Your task to perform on an android device: see sites visited before in the chrome app Image 0: 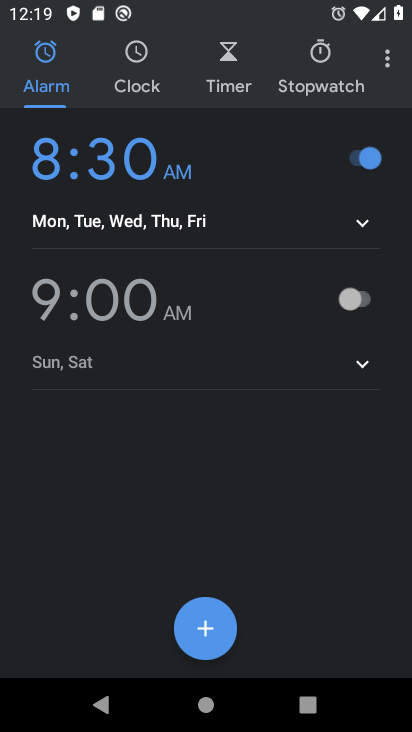
Step 0: click (227, 485)
Your task to perform on an android device: see sites visited before in the chrome app Image 1: 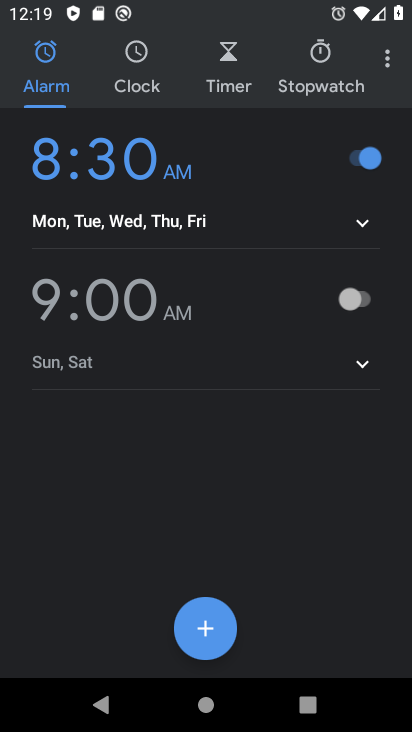
Step 1: click (382, 63)
Your task to perform on an android device: see sites visited before in the chrome app Image 2: 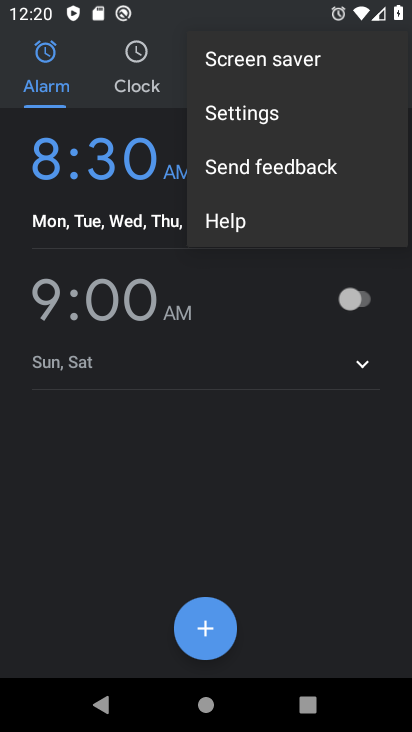
Step 2: click (235, 479)
Your task to perform on an android device: see sites visited before in the chrome app Image 3: 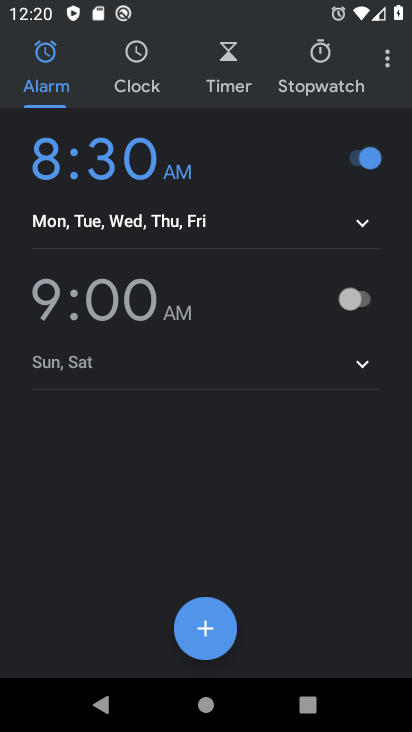
Step 3: press home button
Your task to perform on an android device: see sites visited before in the chrome app Image 4: 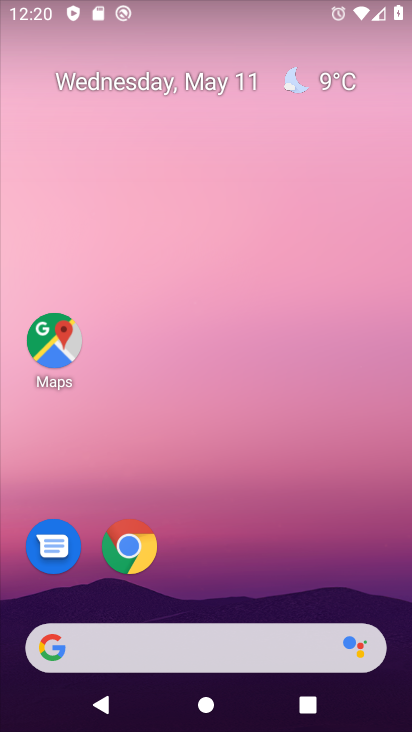
Step 4: drag from (252, 590) to (267, 29)
Your task to perform on an android device: see sites visited before in the chrome app Image 5: 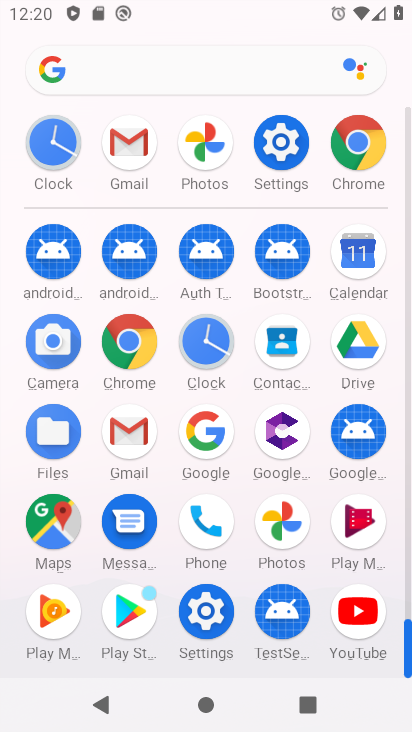
Step 5: drag from (237, 593) to (244, 287)
Your task to perform on an android device: see sites visited before in the chrome app Image 6: 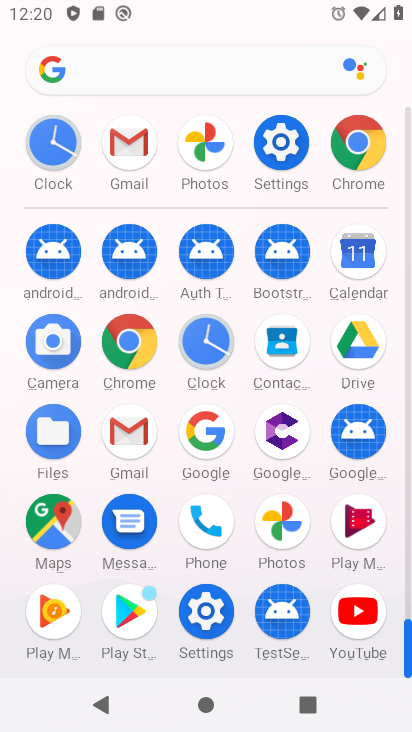
Step 6: click (119, 340)
Your task to perform on an android device: see sites visited before in the chrome app Image 7: 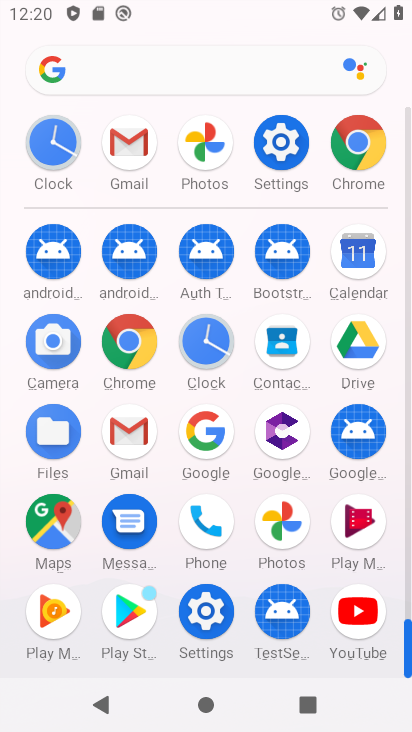
Step 7: click (119, 340)
Your task to perform on an android device: see sites visited before in the chrome app Image 8: 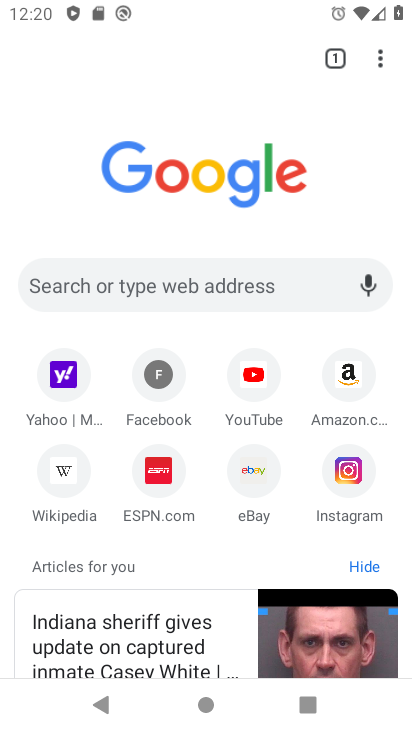
Step 8: drag from (210, 505) to (210, 251)
Your task to perform on an android device: see sites visited before in the chrome app Image 9: 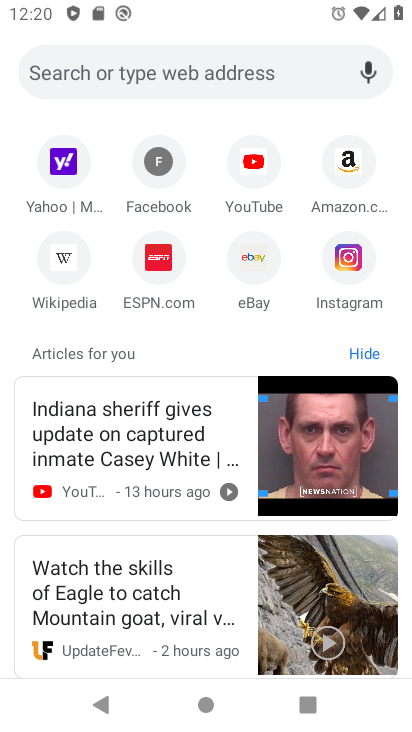
Step 9: drag from (208, 344) to (241, 127)
Your task to perform on an android device: see sites visited before in the chrome app Image 10: 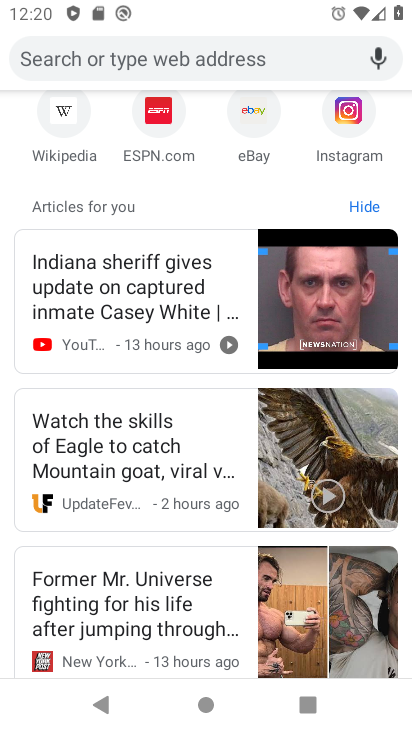
Step 10: drag from (224, 142) to (363, 688)
Your task to perform on an android device: see sites visited before in the chrome app Image 11: 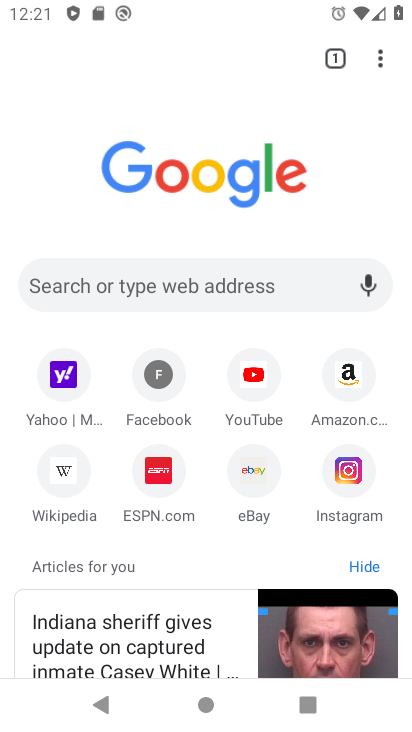
Step 11: drag from (380, 64) to (224, 222)
Your task to perform on an android device: see sites visited before in the chrome app Image 12: 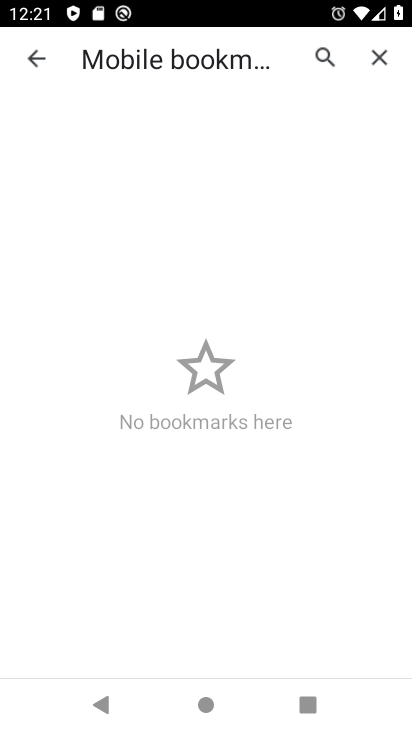
Step 12: drag from (192, 552) to (240, 247)
Your task to perform on an android device: see sites visited before in the chrome app Image 13: 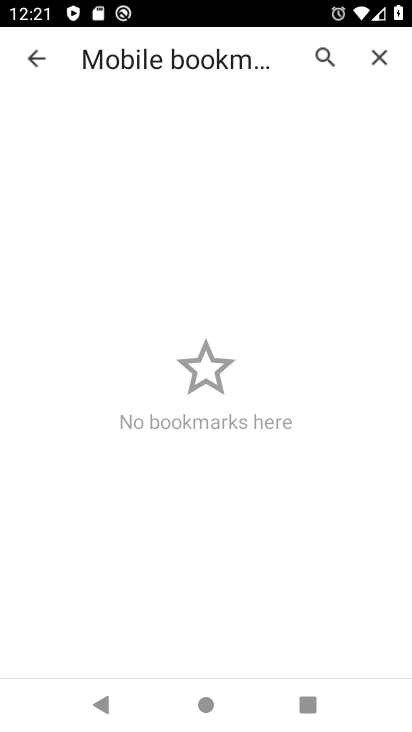
Step 13: drag from (154, 422) to (206, 219)
Your task to perform on an android device: see sites visited before in the chrome app Image 14: 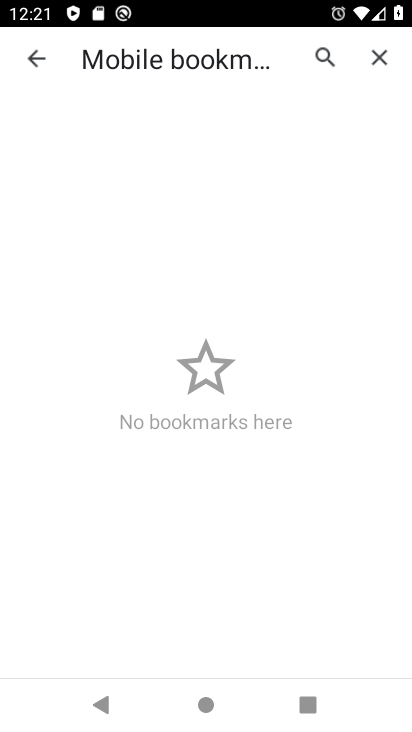
Step 14: click (242, 292)
Your task to perform on an android device: see sites visited before in the chrome app Image 15: 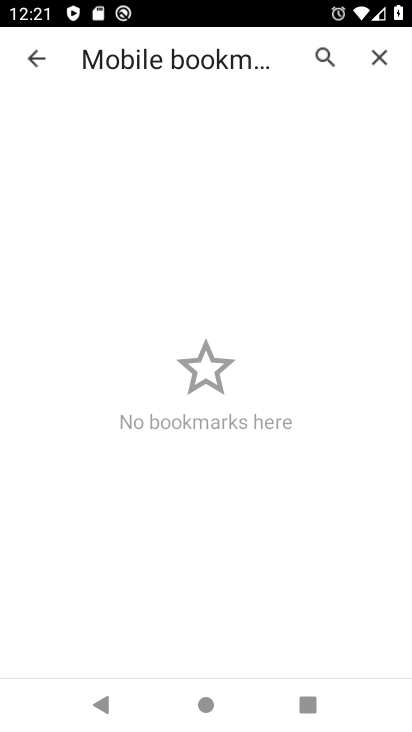
Step 15: drag from (102, 235) to (356, 324)
Your task to perform on an android device: see sites visited before in the chrome app Image 16: 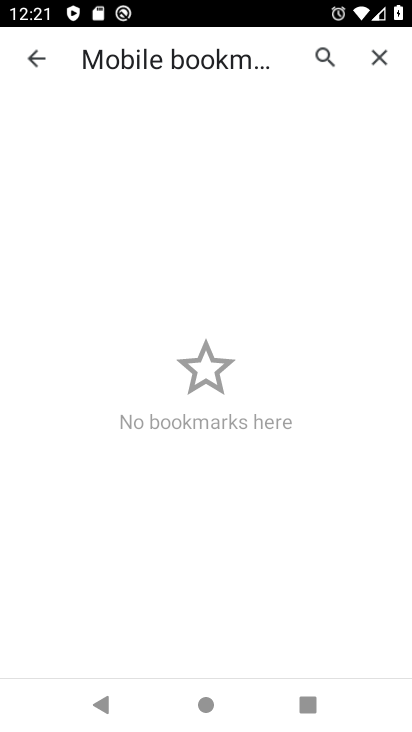
Step 16: click (202, 258)
Your task to perform on an android device: see sites visited before in the chrome app Image 17: 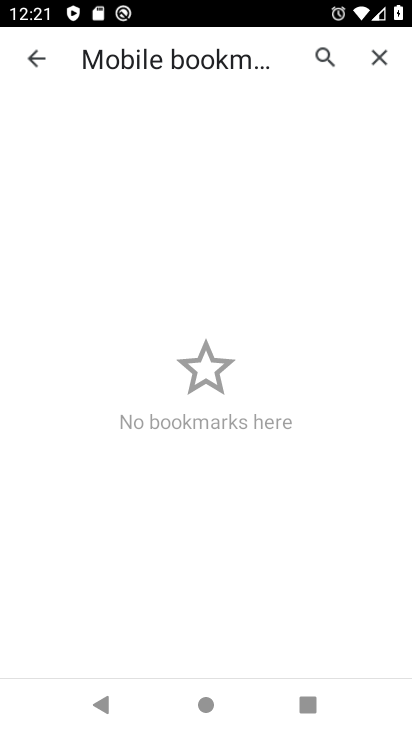
Step 17: drag from (107, 331) to (296, 588)
Your task to perform on an android device: see sites visited before in the chrome app Image 18: 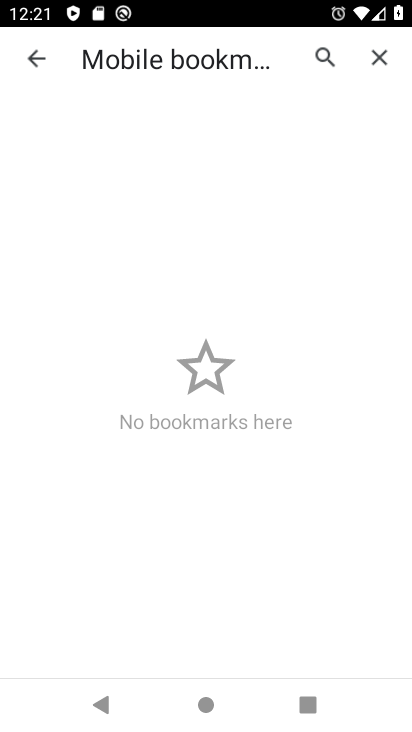
Step 18: click (214, 338)
Your task to perform on an android device: see sites visited before in the chrome app Image 19: 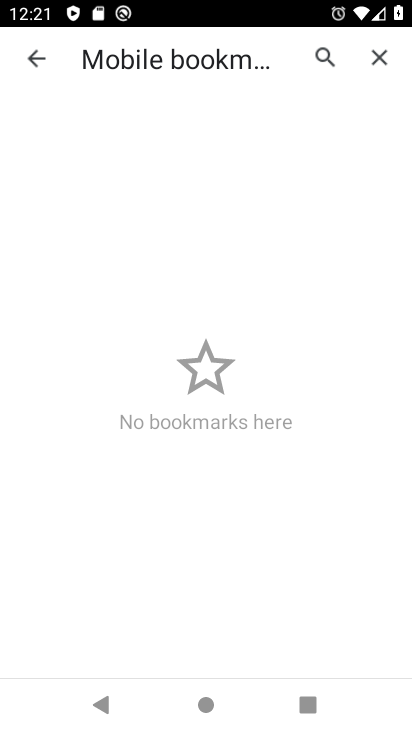
Step 19: task complete